Your task to perform on an android device: Show me recent news Image 0: 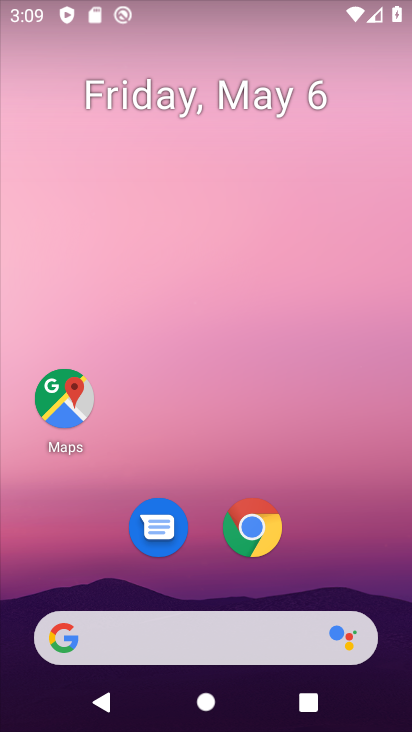
Step 0: drag from (324, 563) to (329, 121)
Your task to perform on an android device: Show me recent news Image 1: 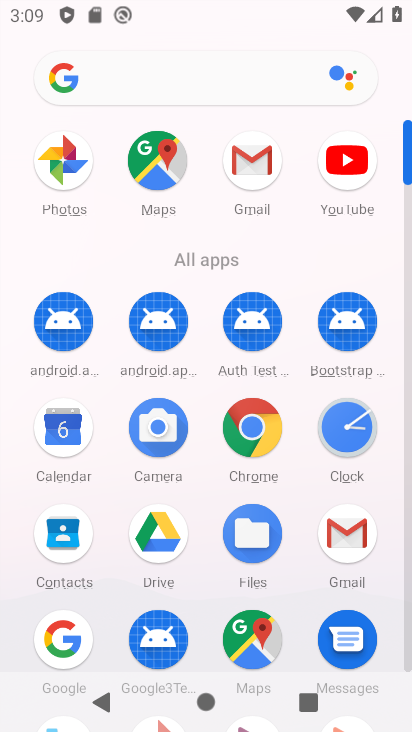
Step 1: click (262, 431)
Your task to perform on an android device: Show me recent news Image 2: 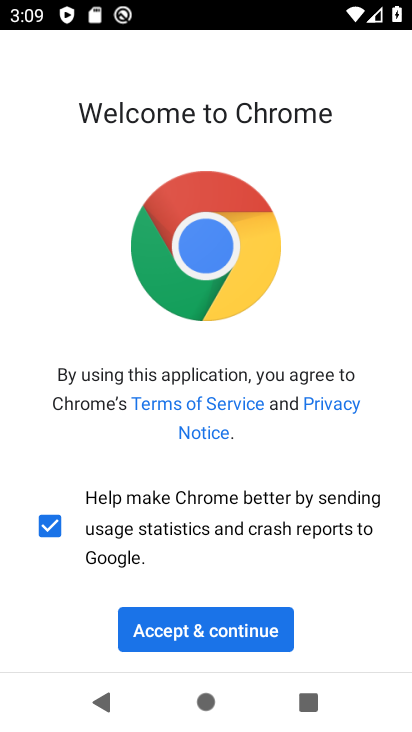
Step 2: click (233, 657)
Your task to perform on an android device: Show me recent news Image 3: 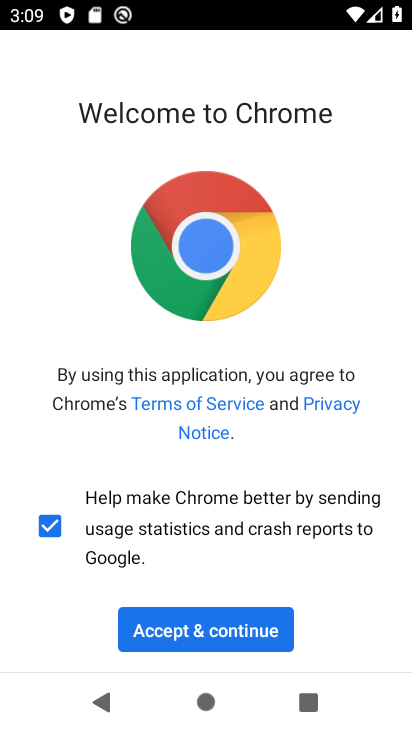
Step 3: click (216, 626)
Your task to perform on an android device: Show me recent news Image 4: 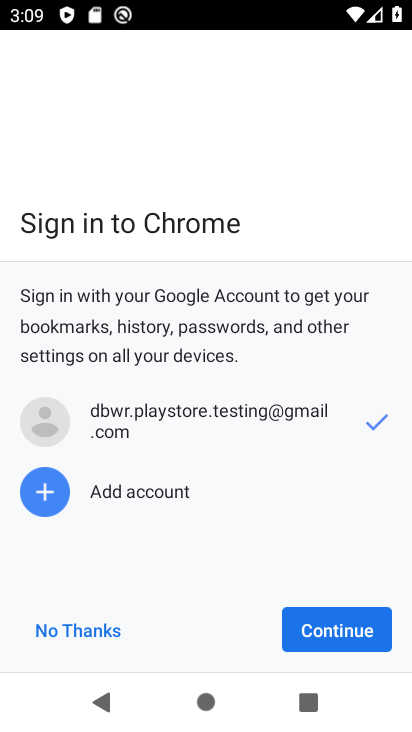
Step 4: click (315, 635)
Your task to perform on an android device: Show me recent news Image 5: 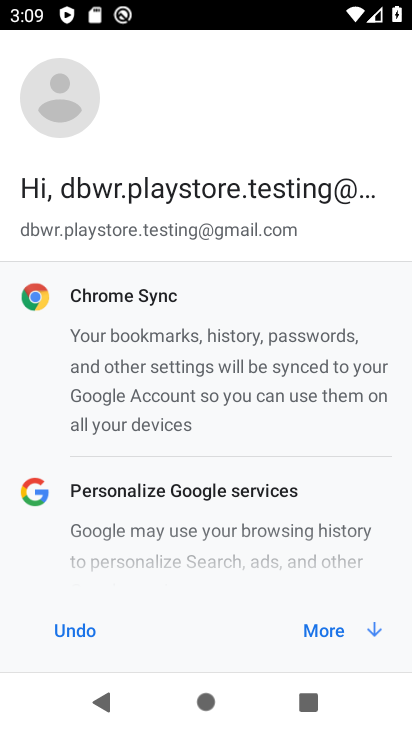
Step 5: click (343, 621)
Your task to perform on an android device: Show me recent news Image 6: 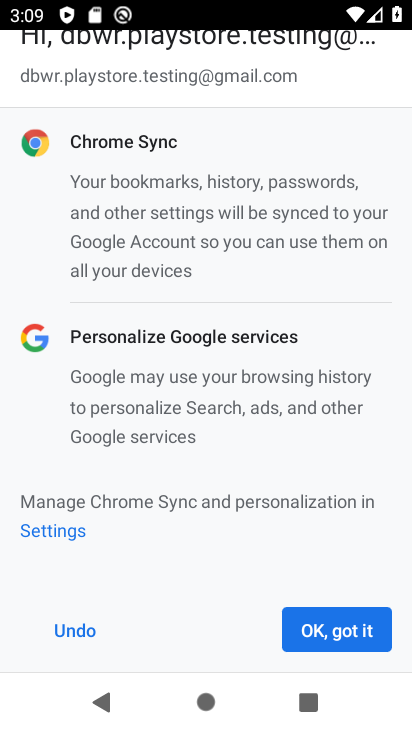
Step 6: click (339, 624)
Your task to perform on an android device: Show me recent news Image 7: 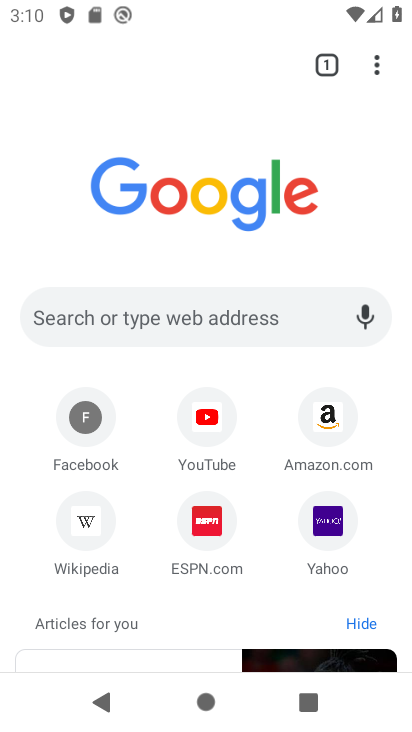
Step 7: click (208, 312)
Your task to perform on an android device: Show me recent news Image 8: 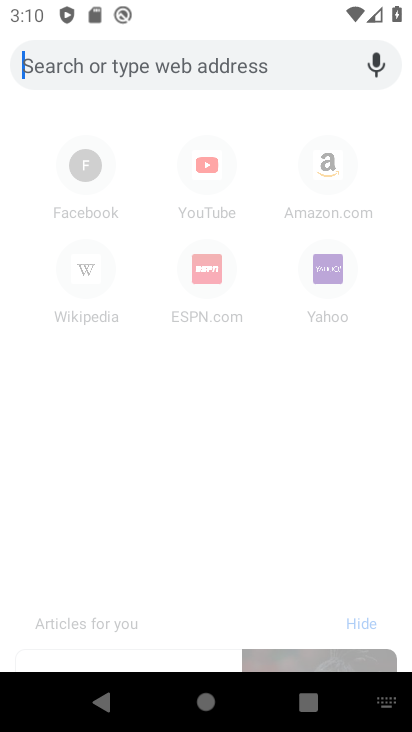
Step 8: type "recent news"
Your task to perform on an android device: Show me recent news Image 9: 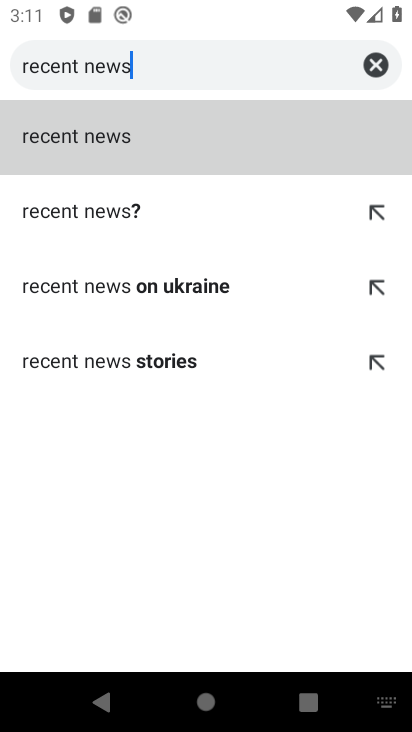
Step 9: click (125, 122)
Your task to perform on an android device: Show me recent news Image 10: 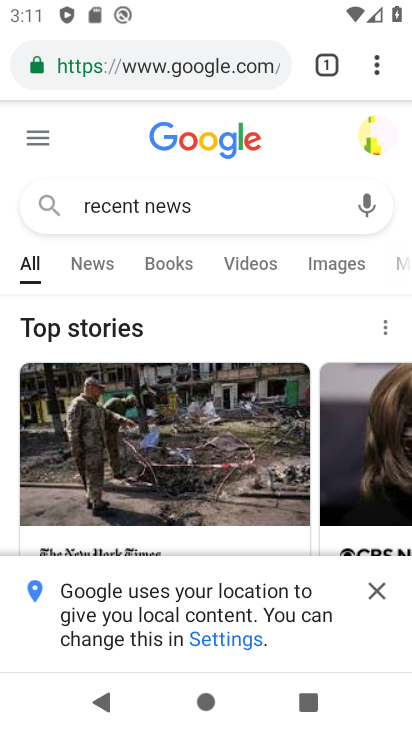
Step 10: click (90, 274)
Your task to perform on an android device: Show me recent news Image 11: 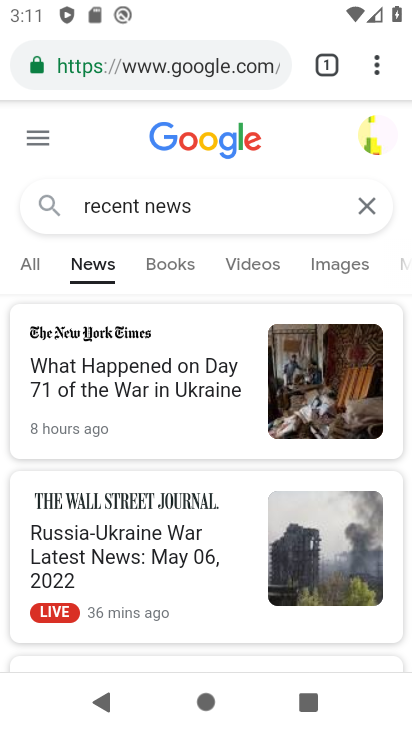
Step 11: task complete